Your task to perform on an android device: Open privacy settings Image 0: 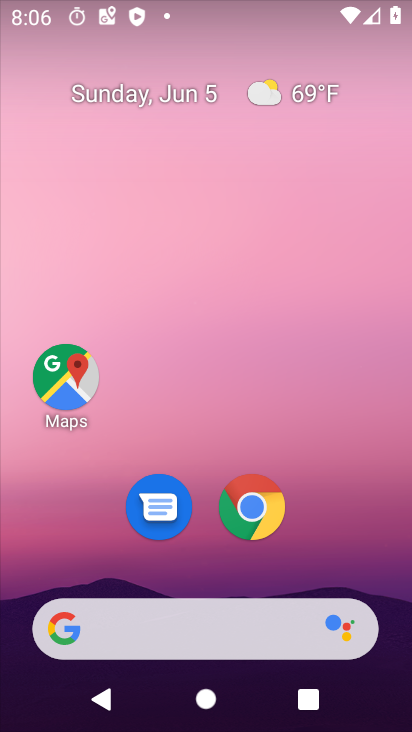
Step 0: drag from (343, 507) to (251, 4)
Your task to perform on an android device: Open privacy settings Image 1: 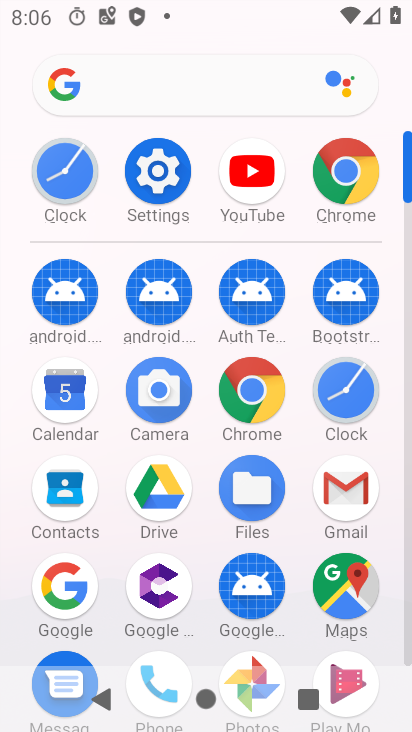
Step 1: click (153, 173)
Your task to perform on an android device: Open privacy settings Image 2: 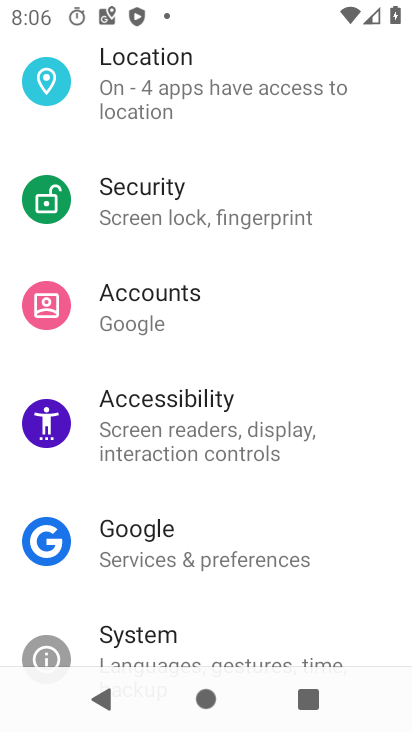
Step 2: drag from (319, 574) to (299, 88)
Your task to perform on an android device: Open privacy settings Image 3: 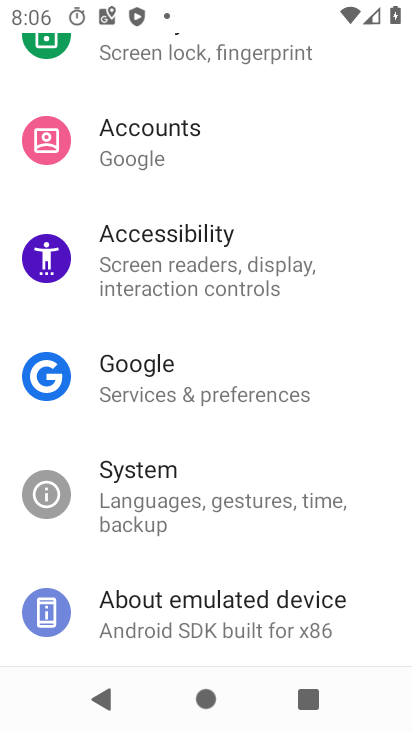
Step 3: drag from (311, 243) to (332, 629)
Your task to perform on an android device: Open privacy settings Image 4: 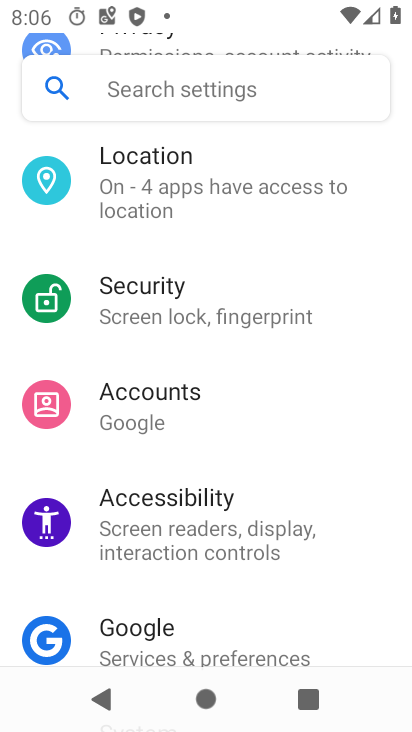
Step 4: drag from (320, 206) to (290, 635)
Your task to perform on an android device: Open privacy settings Image 5: 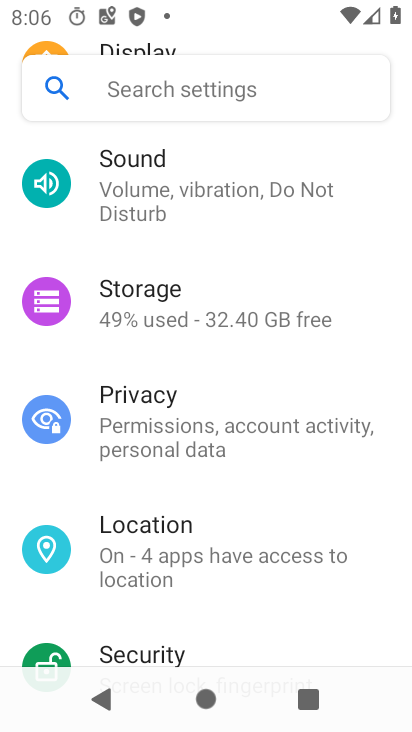
Step 5: click (176, 398)
Your task to perform on an android device: Open privacy settings Image 6: 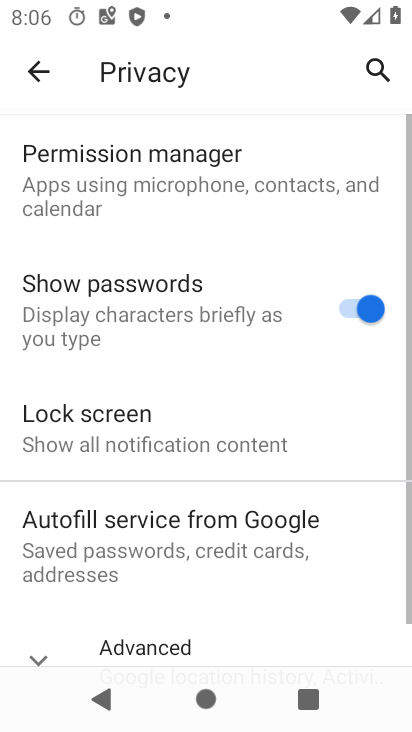
Step 6: drag from (106, 560) to (131, 220)
Your task to perform on an android device: Open privacy settings Image 7: 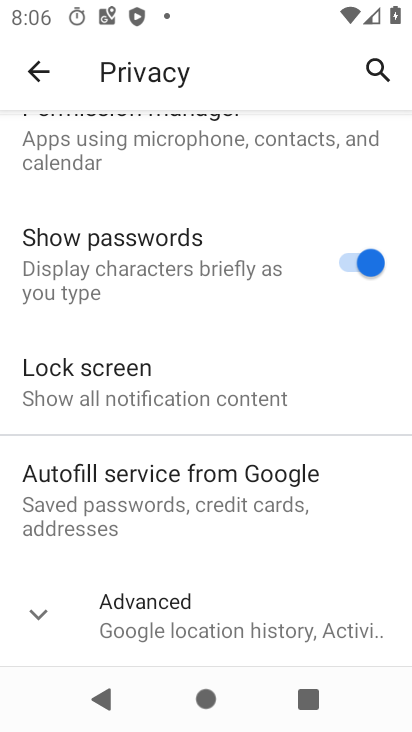
Step 7: click (42, 607)
Your task to perform on an android device: Open privacy settings Image 8: 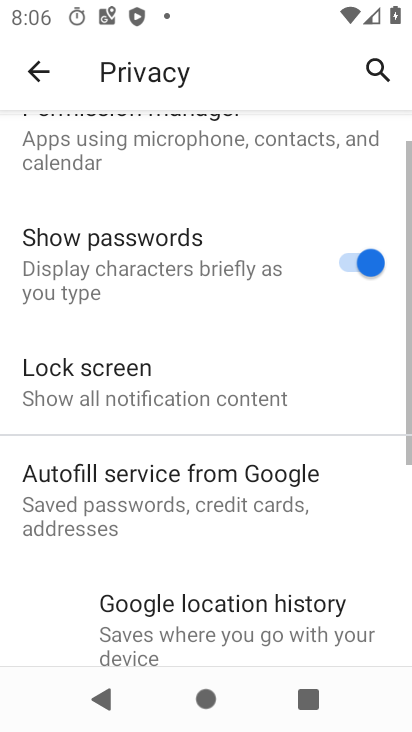
Step 8: task complete